Your task to perform on an android device: Search for acer nitro on walmart, select the first entry, and add it to the cart. Image 0: 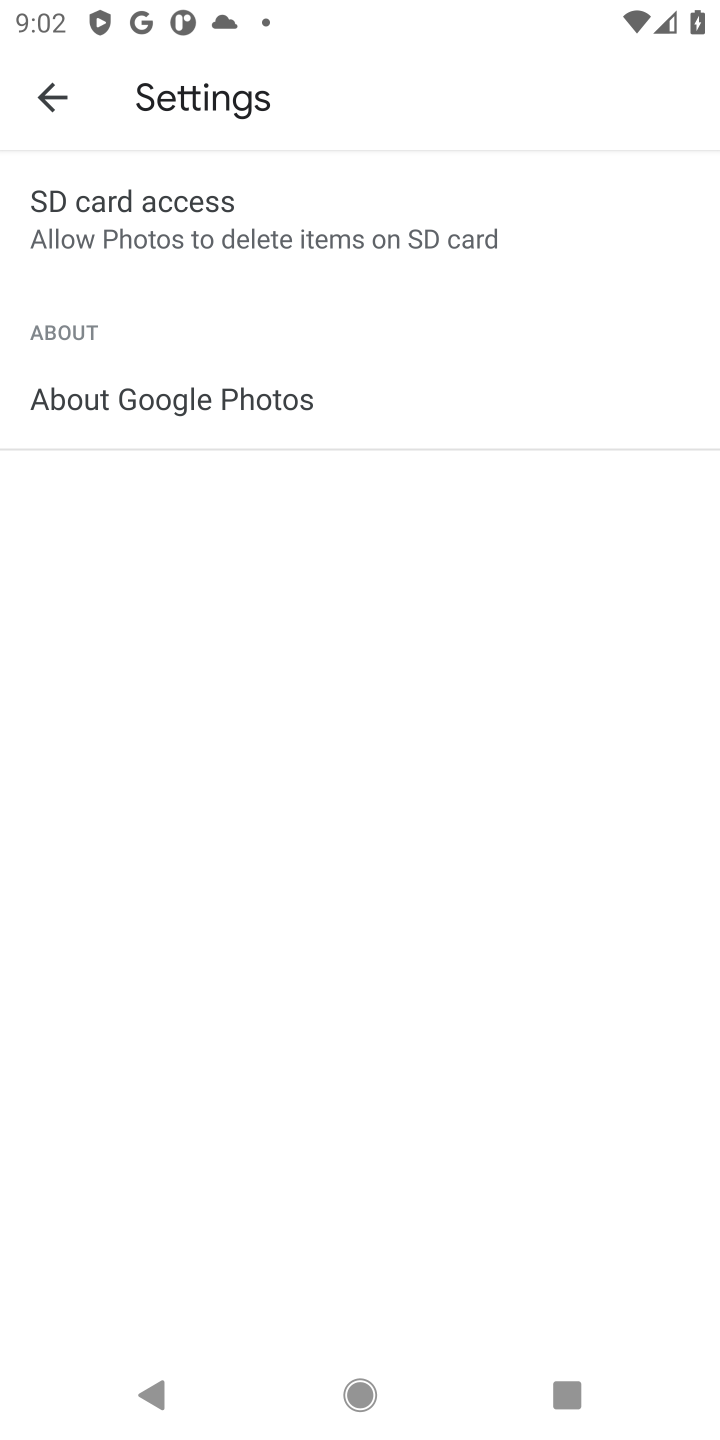
Step 0: press home button
Your task to perform on an android device: Search for acer nitro on walmart, select the first entry, and add it to the cart. Image 1: 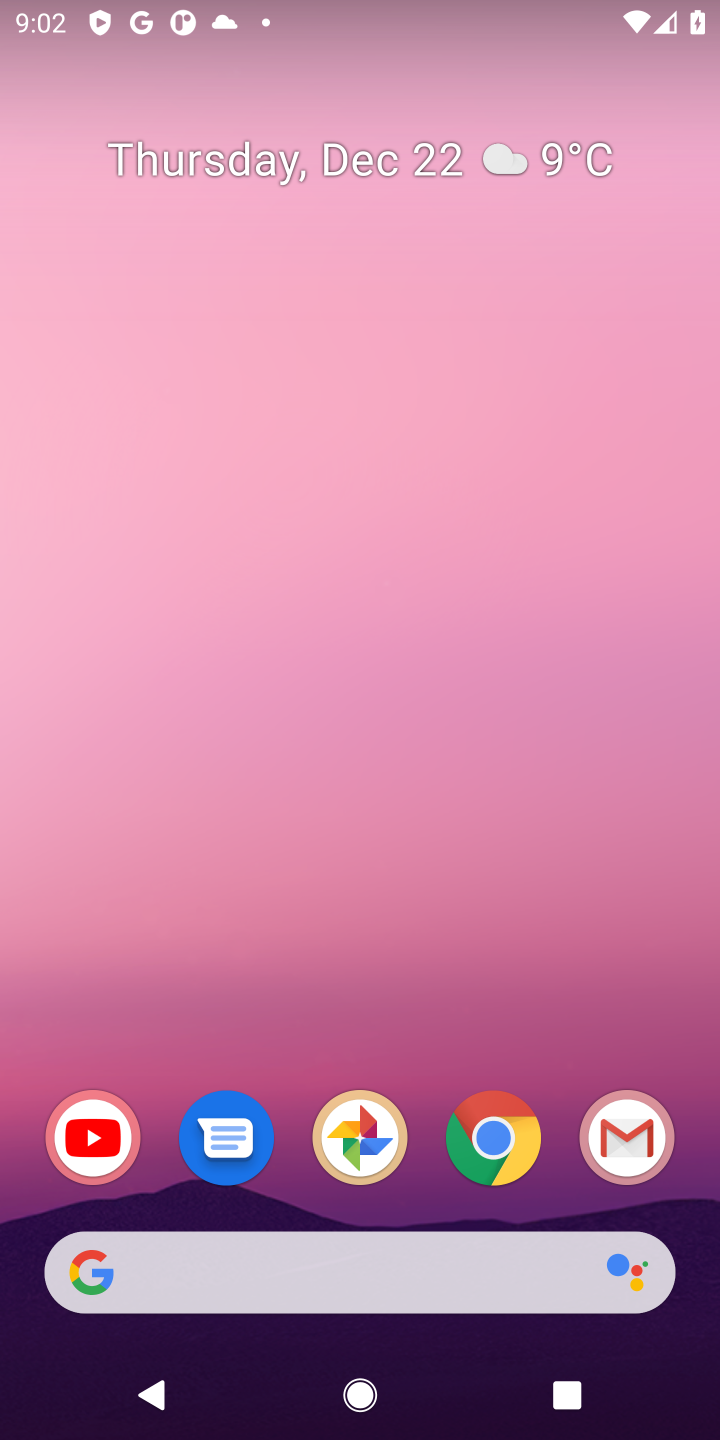
Step 1: click (514, 1153)
Your task to perform on an android device: Search for acer nitro on walmart, select the first entry, and add it to the cart. Image 2: 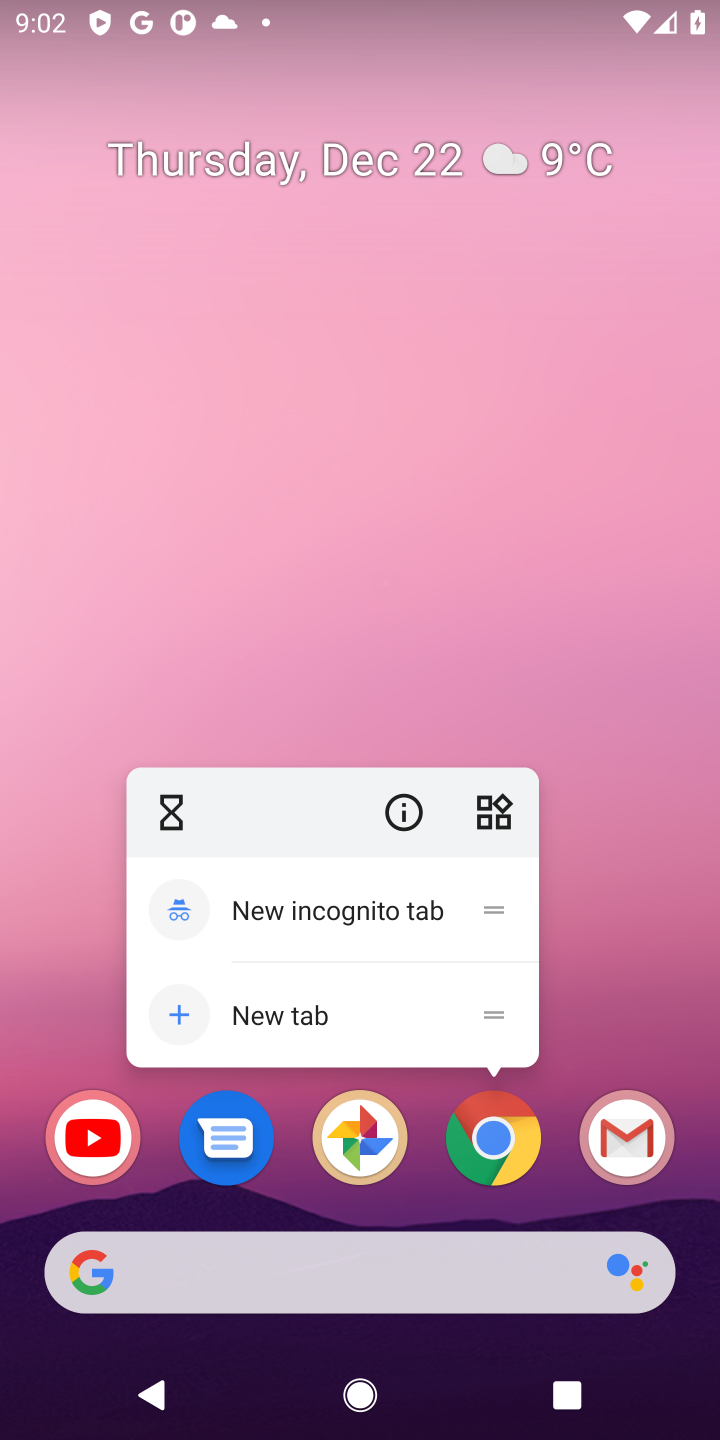
Step 2: click (494, 1154)
Your task to perform on an android device: Search for acer nitro on walmart, select the first entry, and add it to the cart. Image 3: 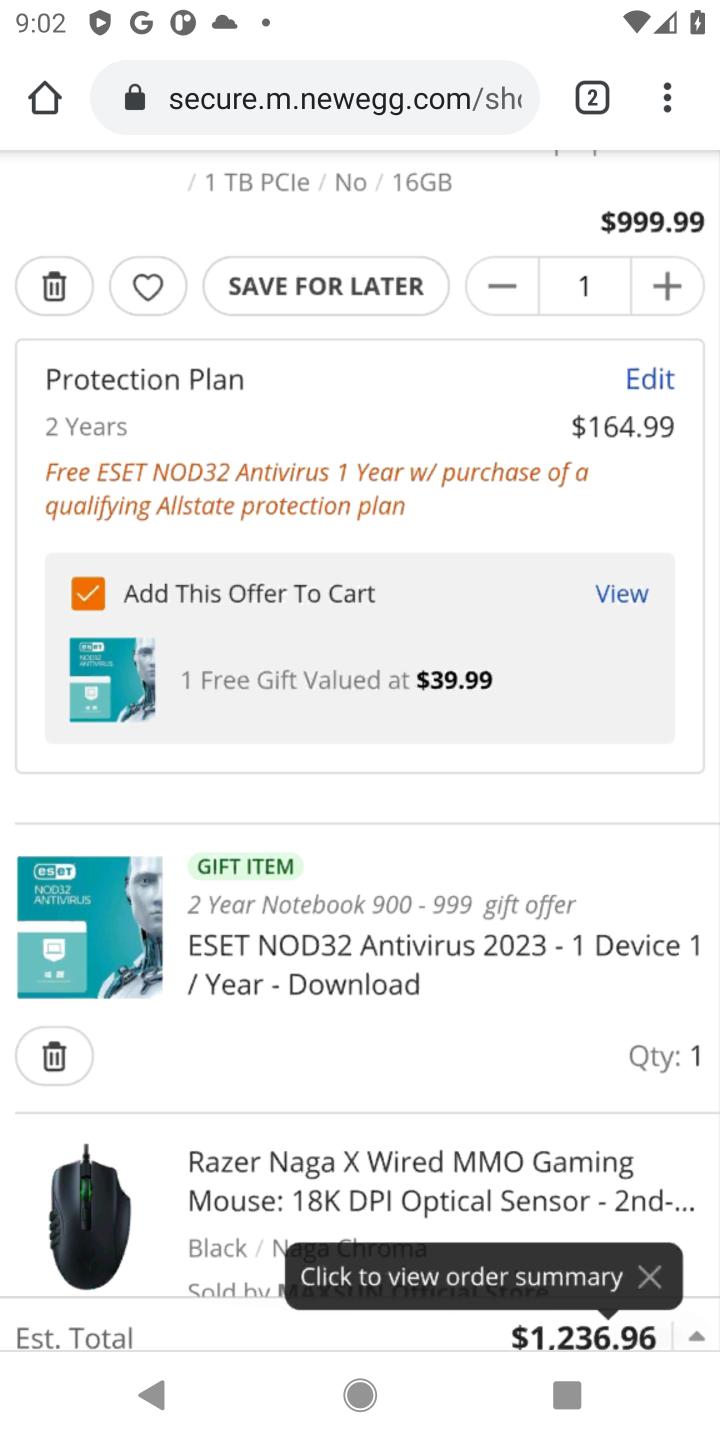
Step 3: click (319, 109)
Your task to perform on an android device: Search for acer nitro on walmart, select the first entry, and add it to the cart. Image 4: 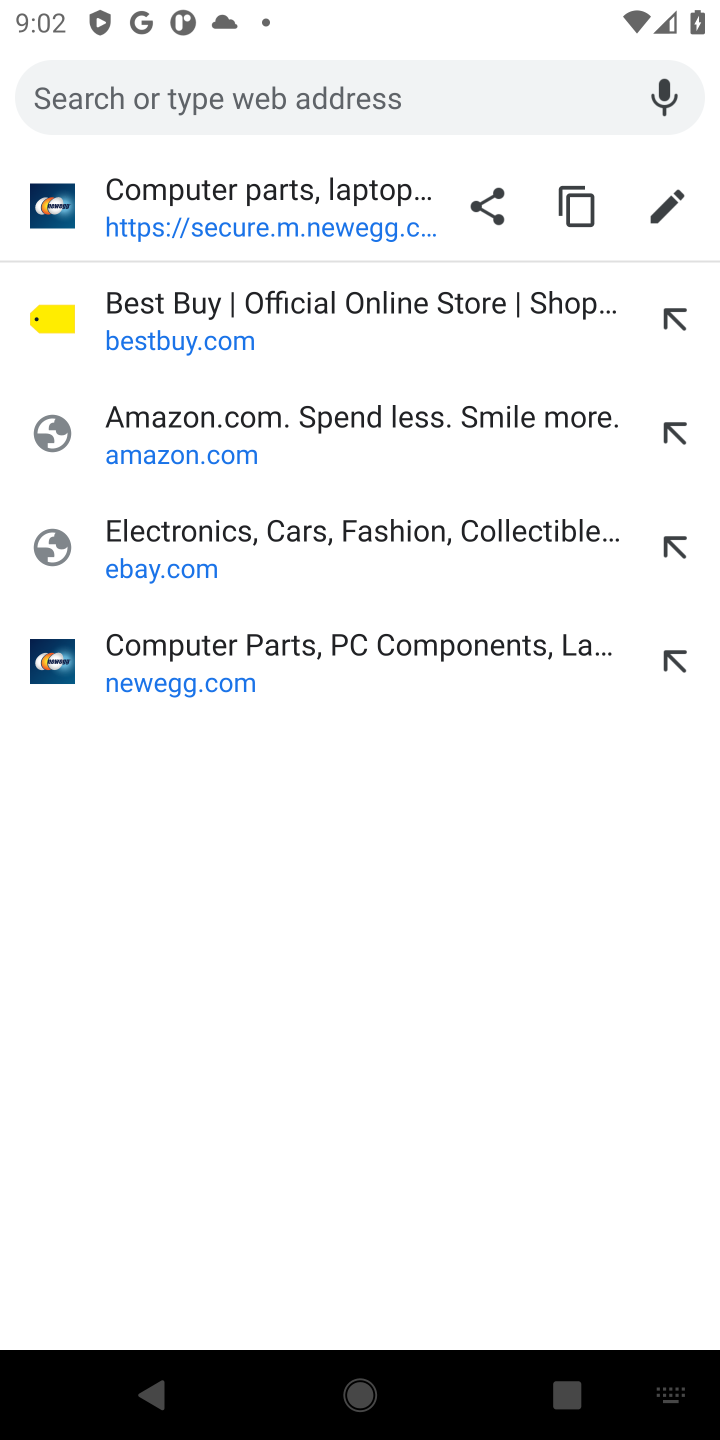
Step 4: type "walmart"
Your task to perform on an android device: Search for acer nitro on walmart, select the first entry, and add it to the cart. Image 5: 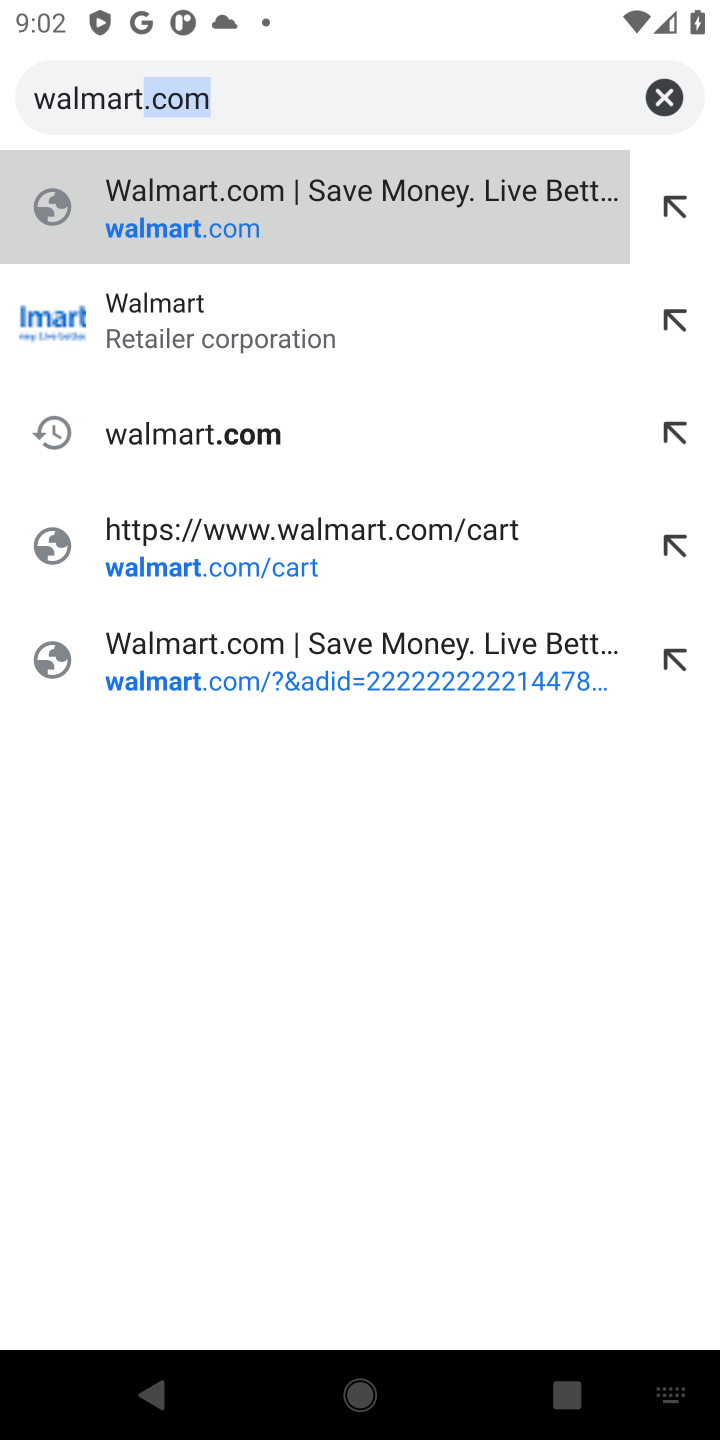
Step 5: click (205, 234)
Your task to perform on an android device: Search for acer nitro on walmart, select the first entry, and add it to the cart. Image 6: 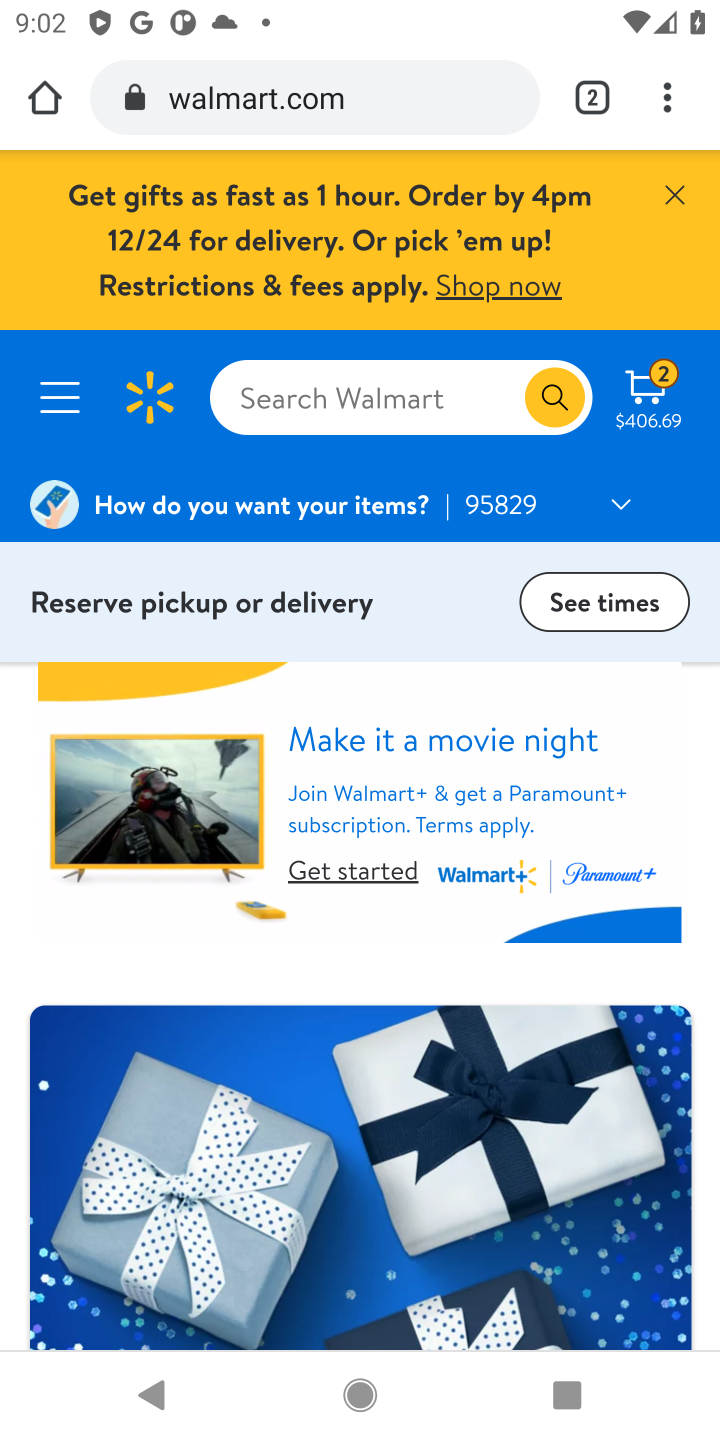
Step 6: click (410, 405)
Your task to perform on an android device: Search for acer nitro on walmart, select the first entry, and add it to the cart. Image 7: 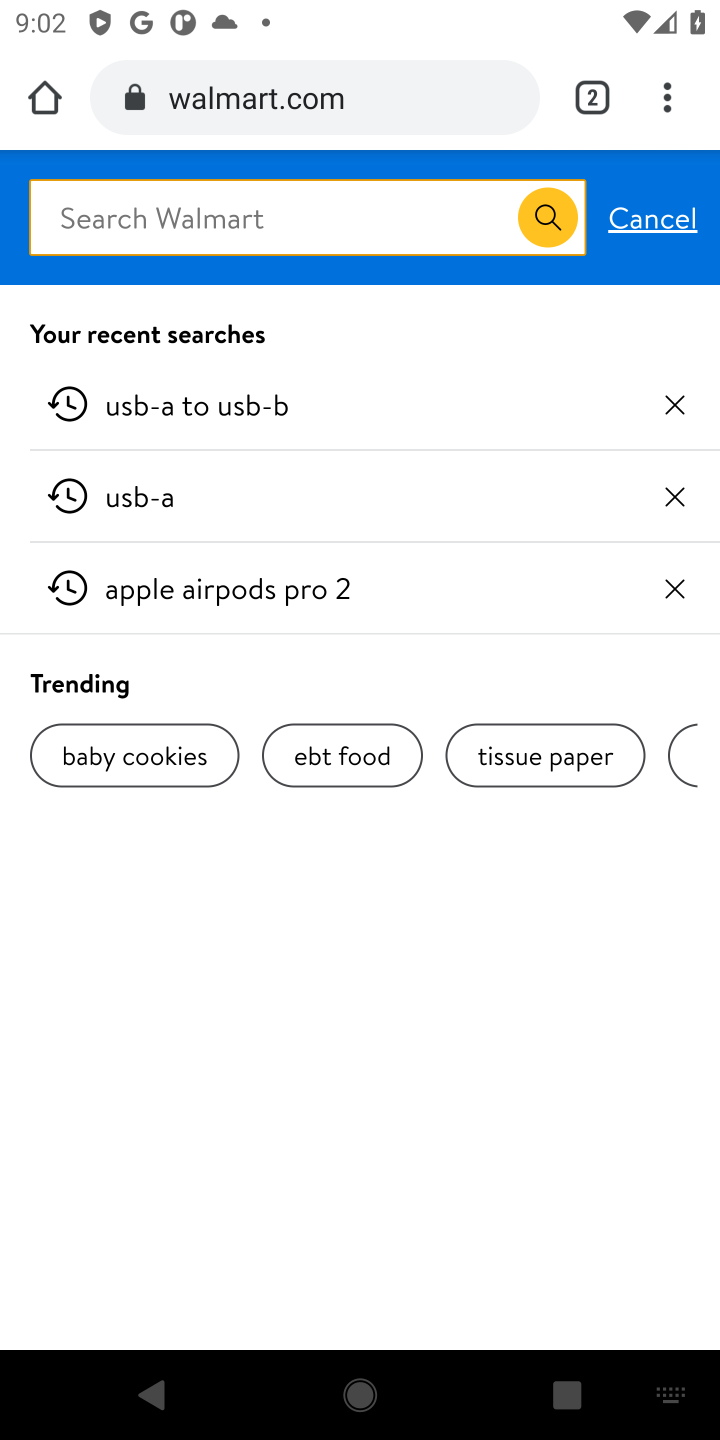
Step 7: type "acer nitro"
Your task to perform on an android device: Search for acer nitro on walmart, select the first entry, and add it to the cart. Image 8: 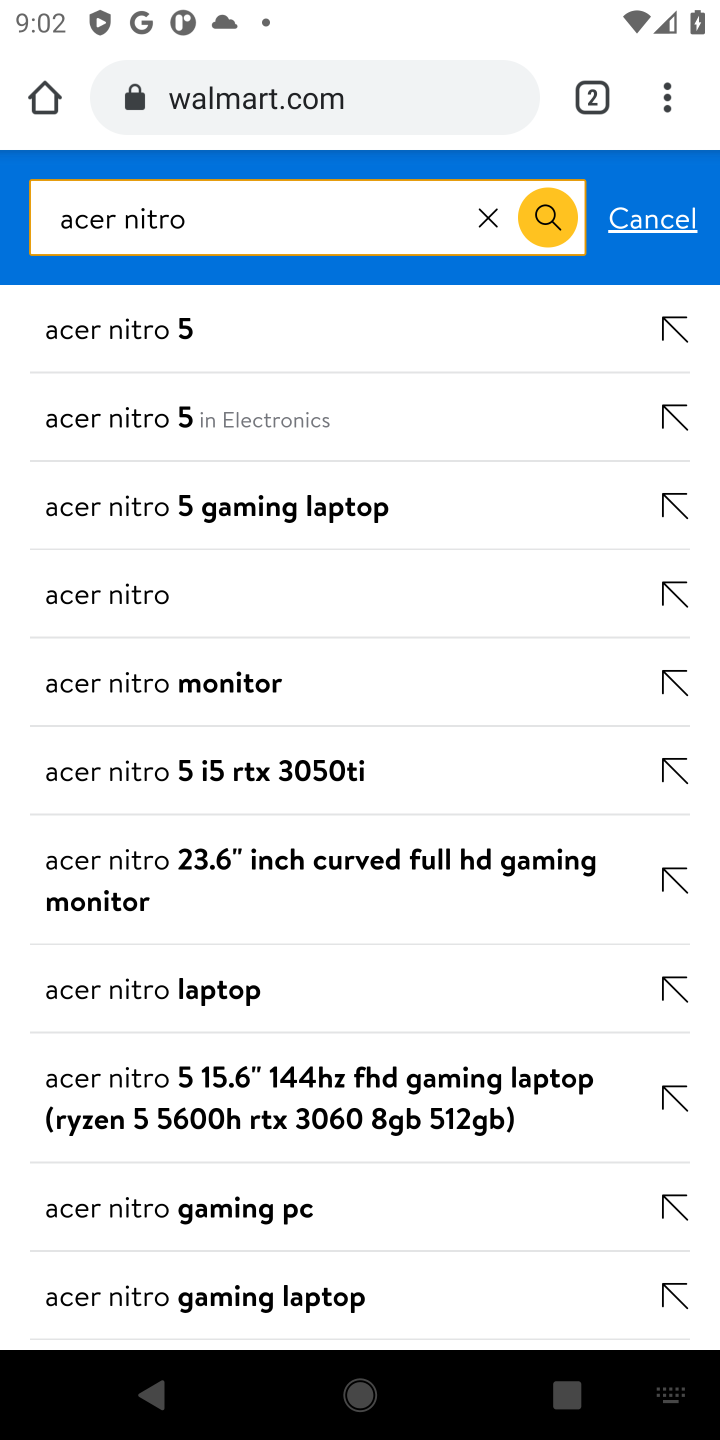
Step 8: click (554, 228)
Your task to perform on an android device: Search for acer nitro on walmart, select the first entry, and add it to the cart. Image 9: 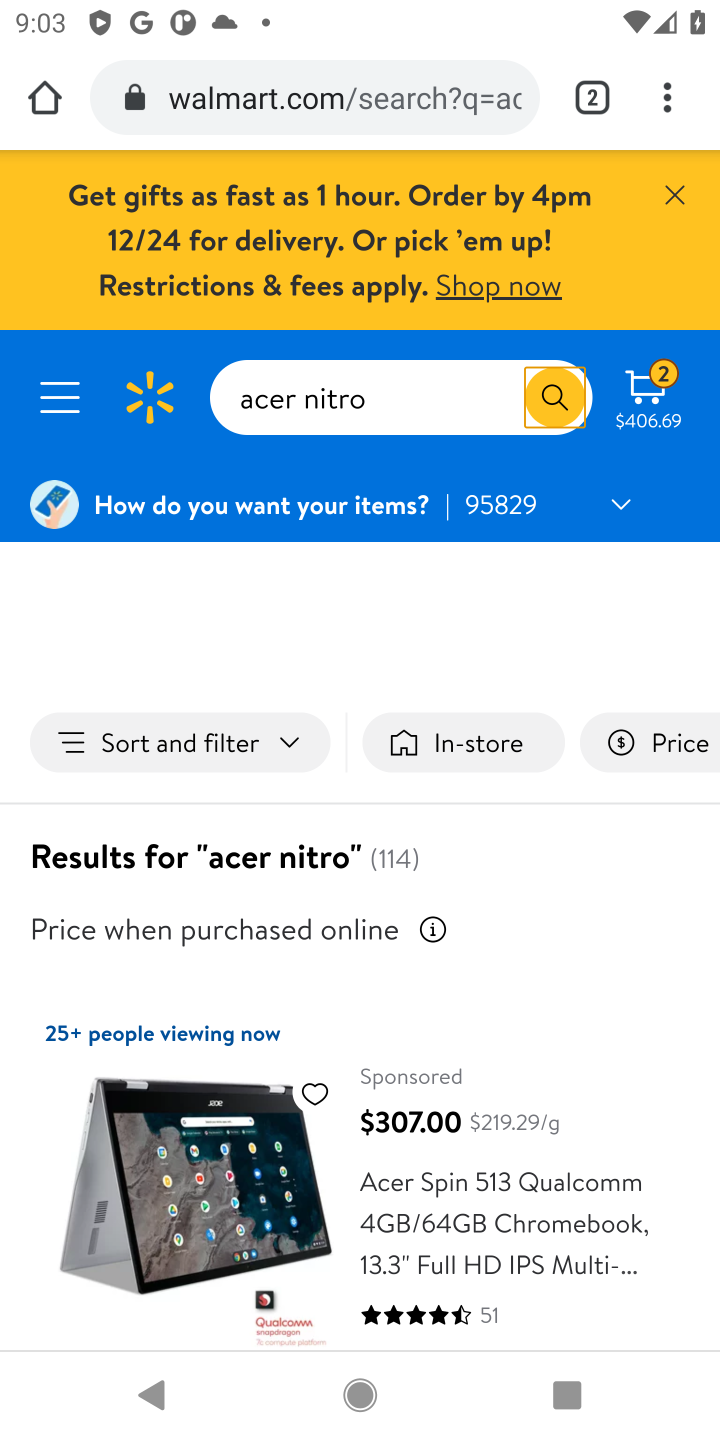
Step 9: drag from (570, 999) to (484, 184)
Your task to perform on an android device: Search for acer nitro on walmart, select the first entry, and add it to the cart. Image 10: 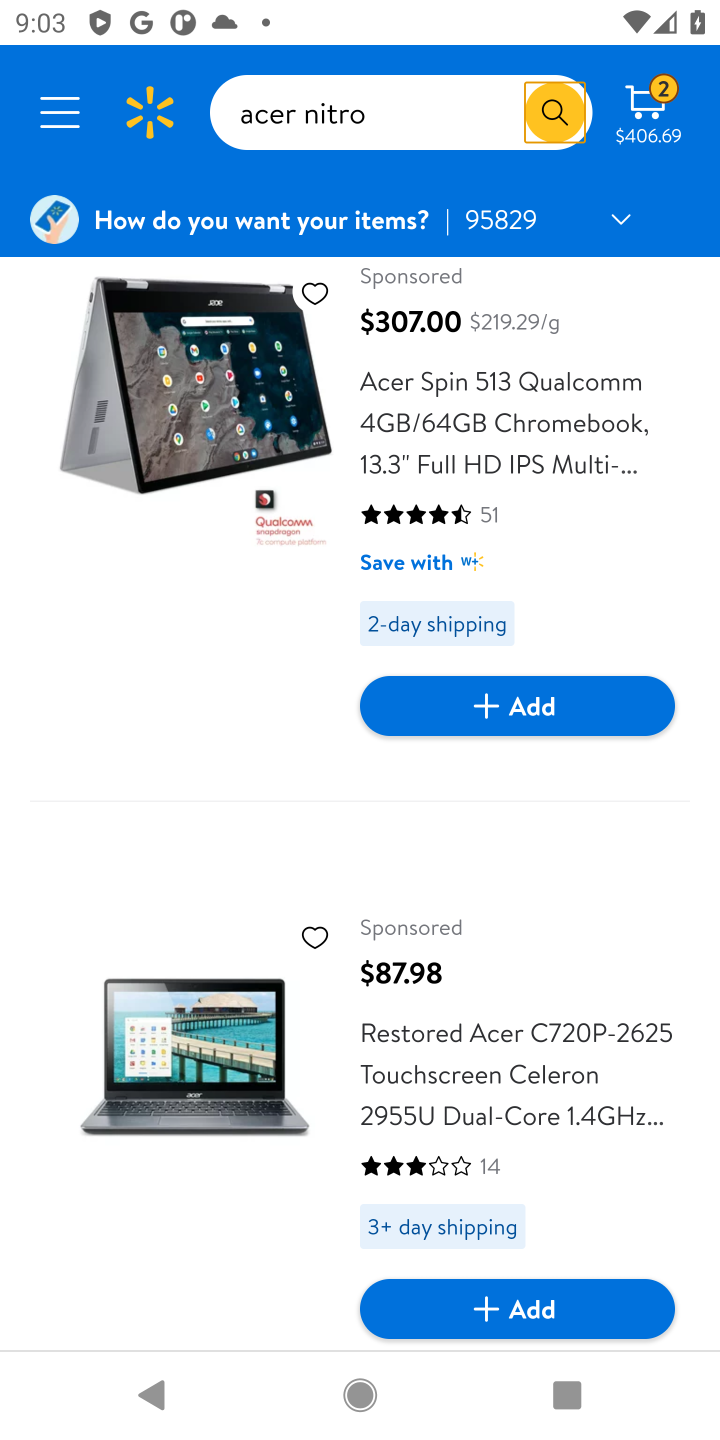
Step 10: drag from (516, 1186) to (426, 657)
Your task to perform on an android device: Search for acer nitro on walmart, select the first entry, and add it to the cart. Image 11: 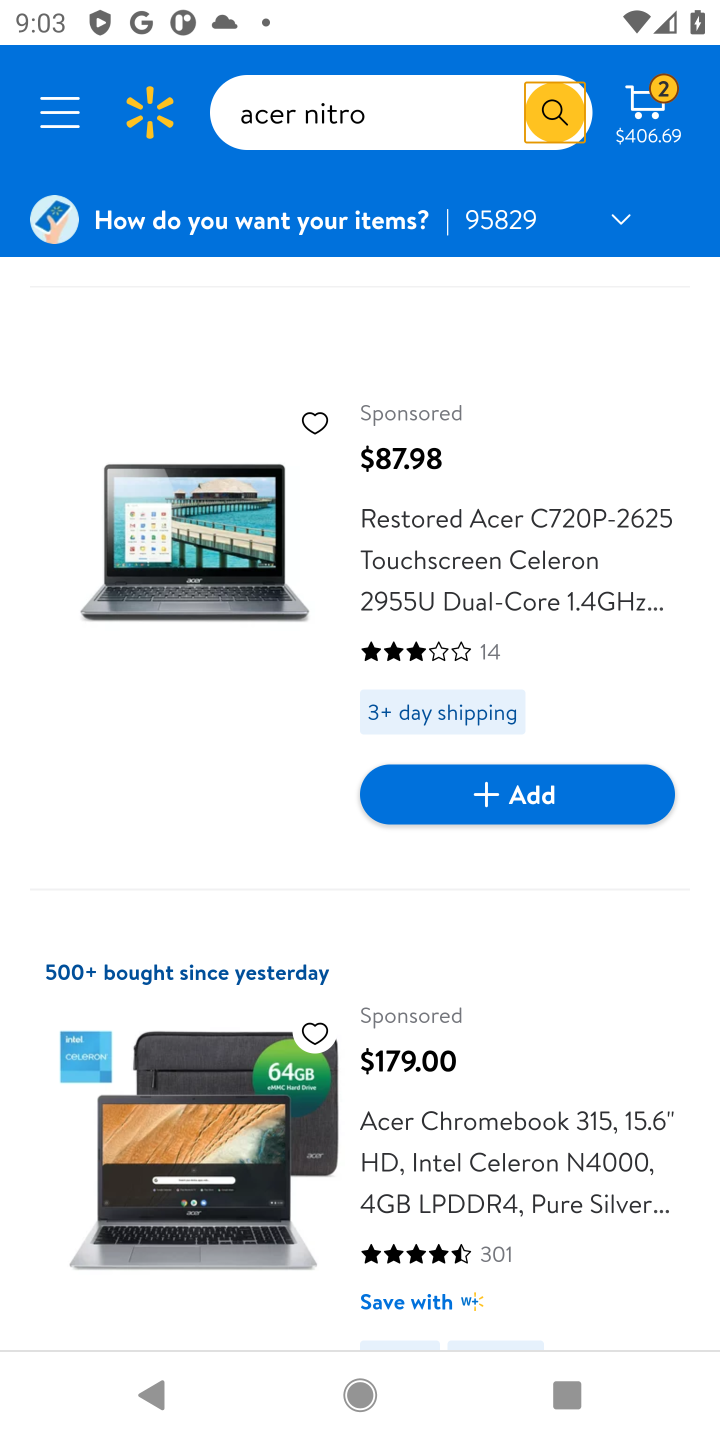
Step 11: drag from (555, 1265) to (354, 350)
Your task to perform on an android device: Search for acer nitro on walmart, select the first entry, and add it to the cart. Image 12: 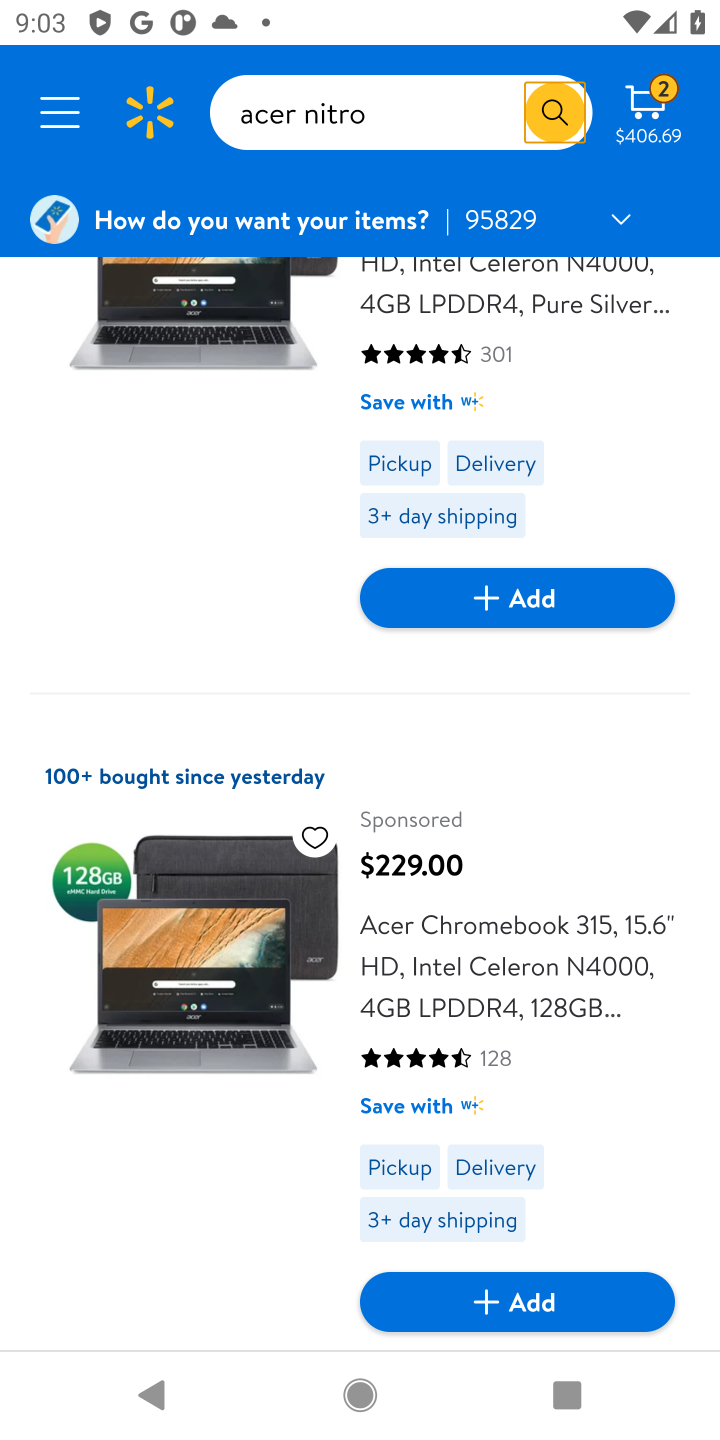
Step 12: drag from (539, 1039) to (525, 697)
Your task to perform on an android device: Search for acer nitro on walmart, select the first entry, and add it to the cart. Image 13: 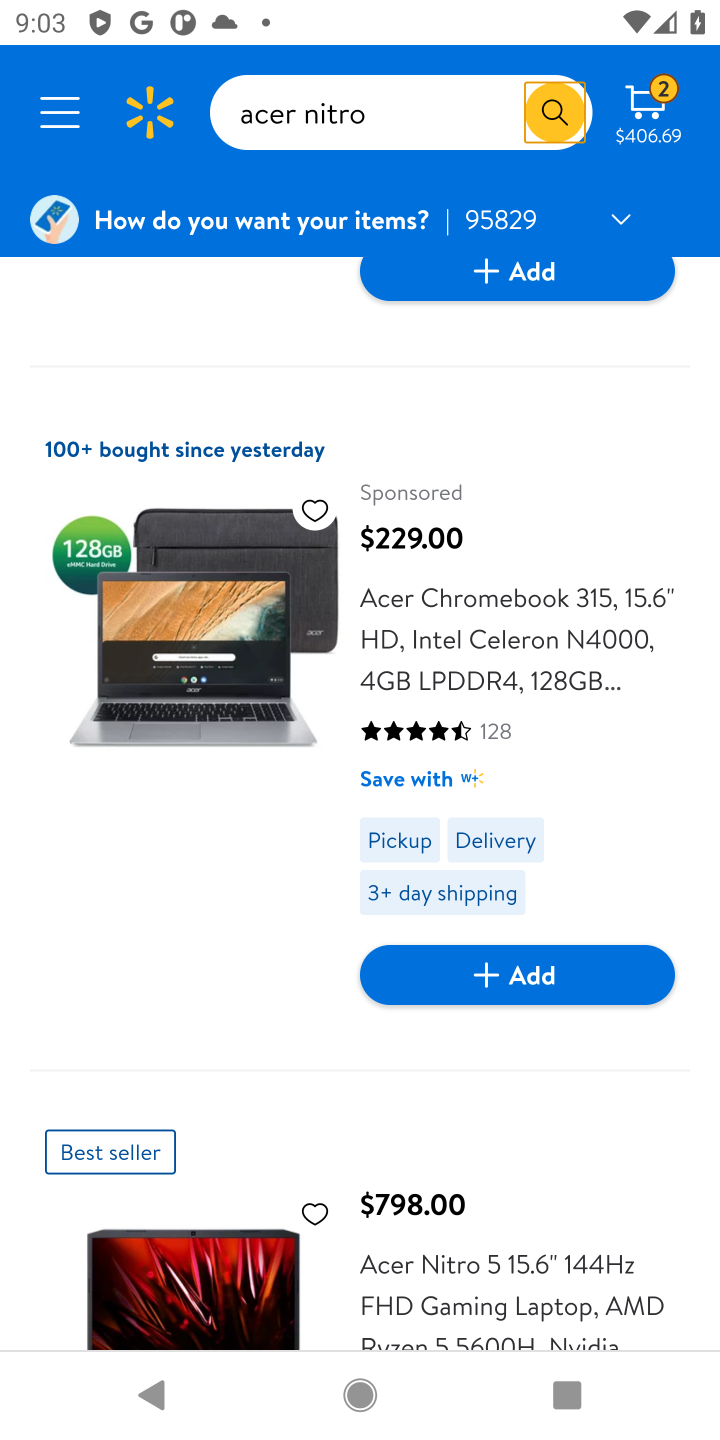
Step 13: drag from (553, 1173) to (534, 639)
Your task to perform on an android device: Search for acer nitro on walmart, select the first entry, and add it to the cart. Image 14: 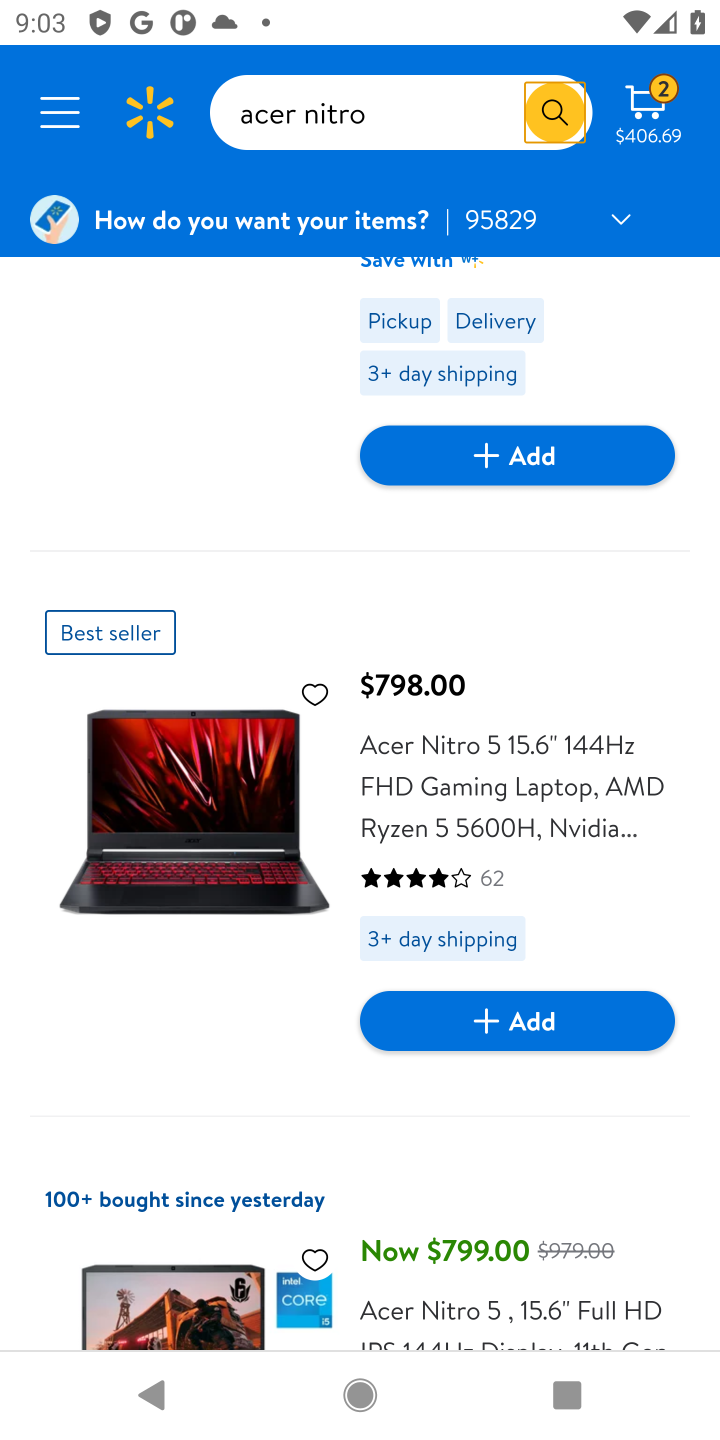
Step 14: drag from (272, 396) to (200, 1174)
Your task to perform on an android device: Search for acer nitro on walmart, select the first entry, and add it to the cart. Image 15: 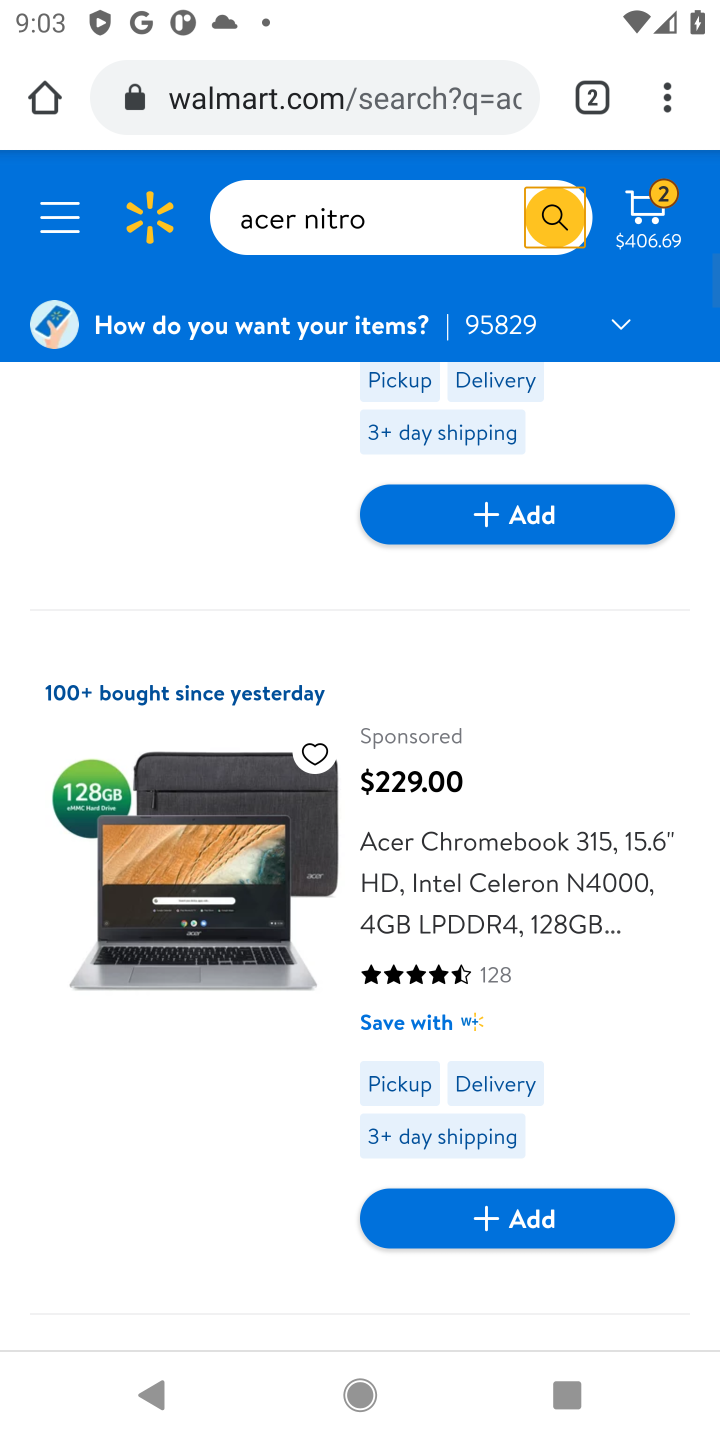
Step 15: drag from (256, 572) to (195, 1238)
Your task to perform on an android device: Search for acer nitro on walmart, select the first entry, and add it to the cart. Image 16: 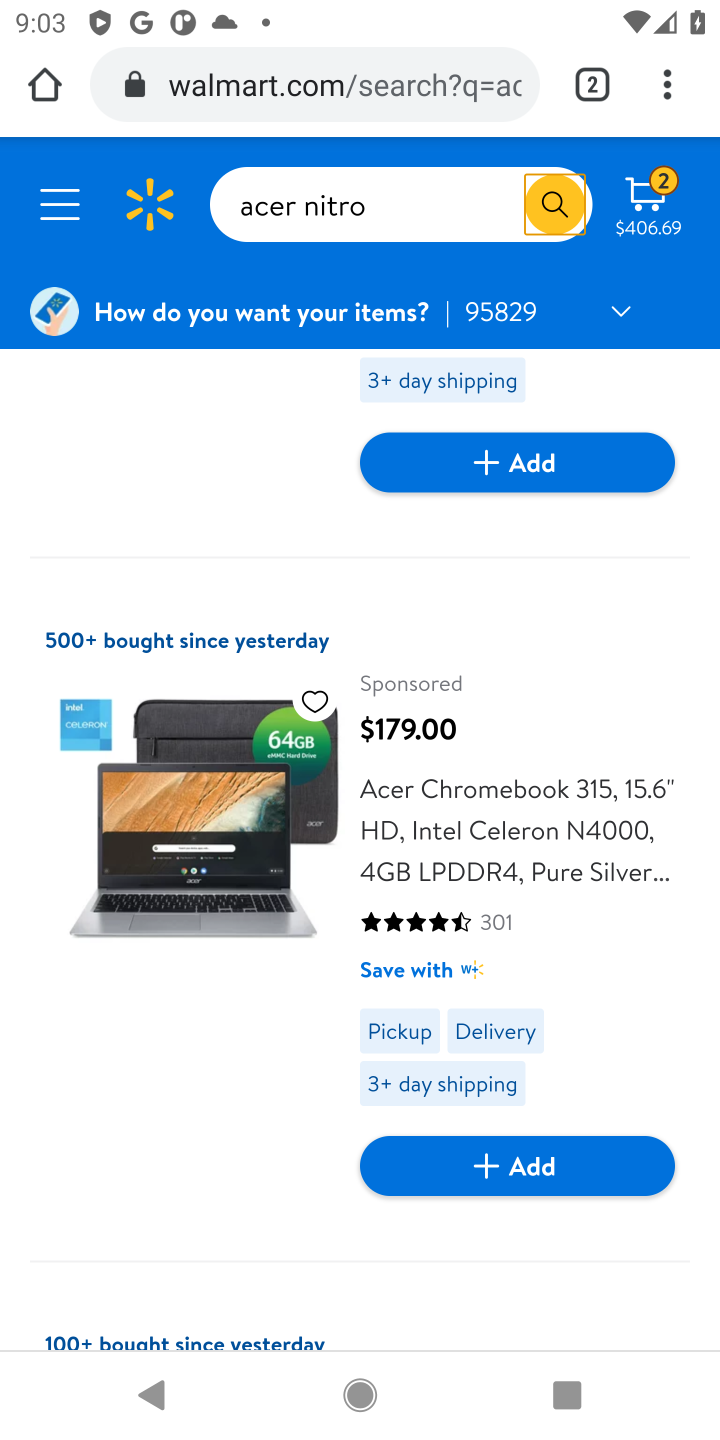
Step 16: drag from (245, 539) to (195, 1439)
Your task to perform on an android device: Search for acer nitro on walmart, select the first entry, and add it to the cart. Image 17: 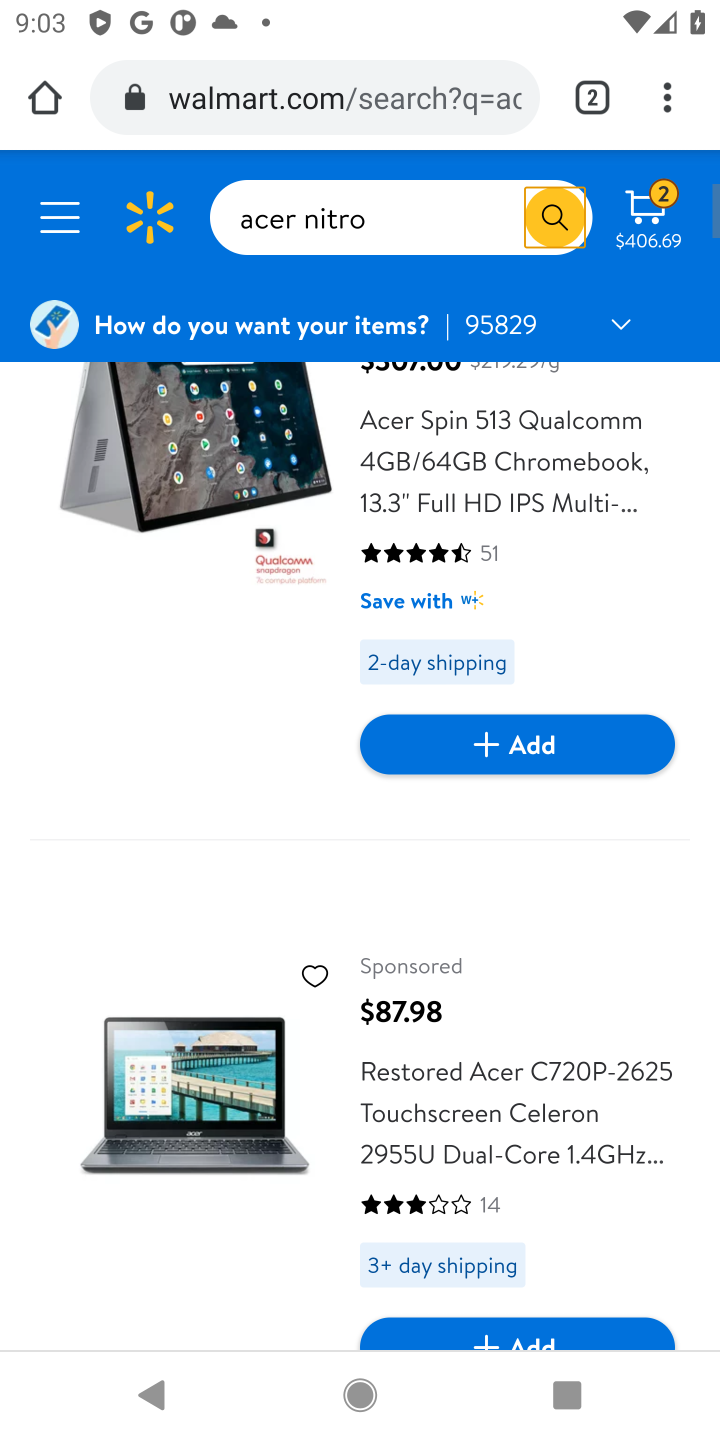
Step 17: drag from (221, 823) to (491, 512)
Your task to perform on an android device: Search for acer nitro on walmart, select the first entry, and add it to the cart. Image 18: 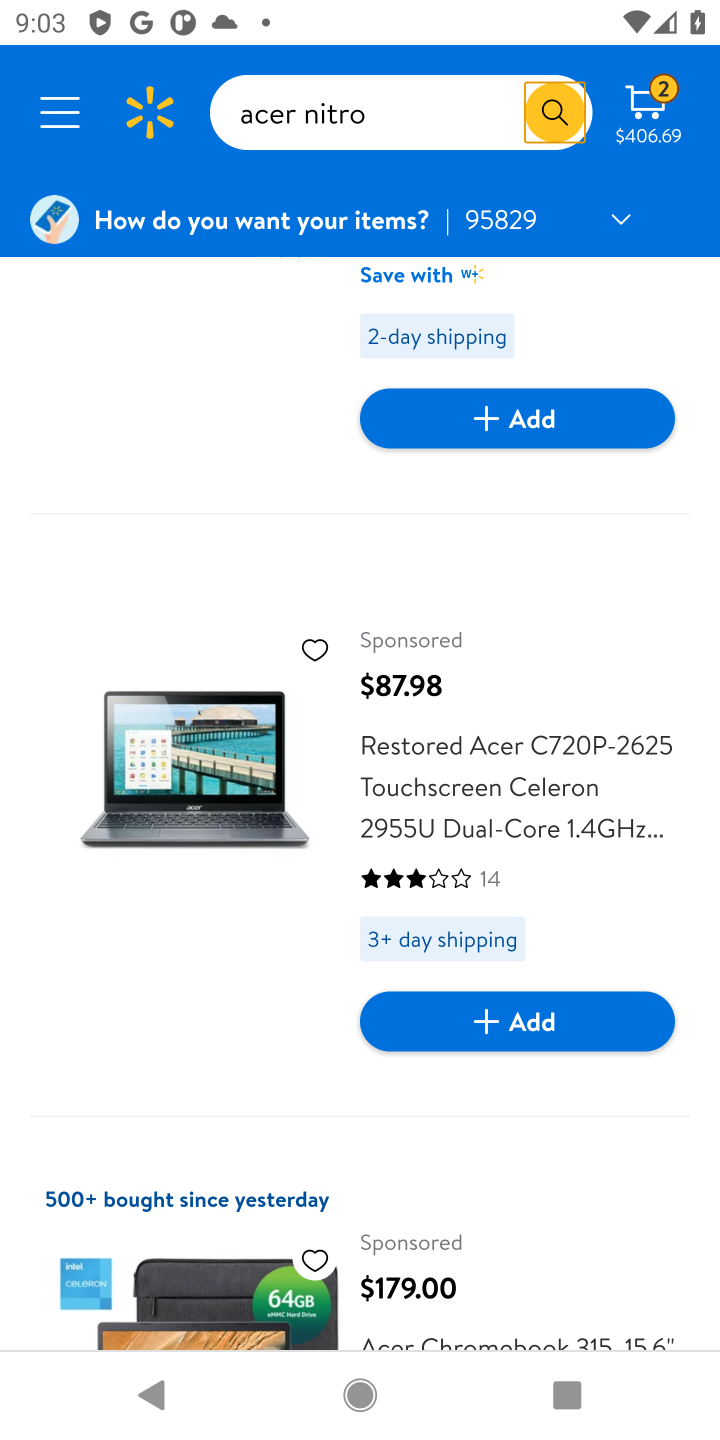
Step 18: drag from (274, 1091) to (374, 329)
Your task to perform on an android device: Search for acer nitro on walmart, select the first entry, and add it to the cart. Image 19: 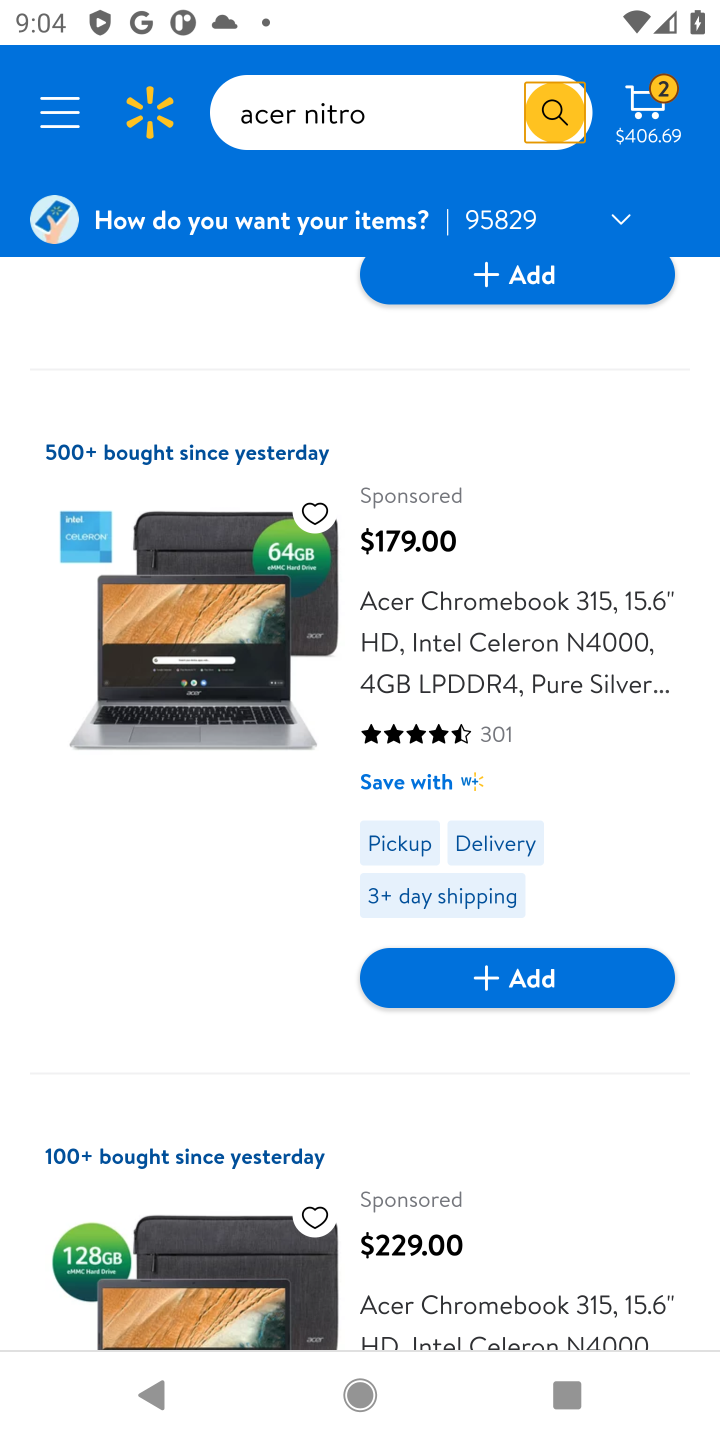
Step 19: drag from (269, 894) to (370, 417)
Your task to perform on an android device: Search for acer nitro on walmart, select the first entry, and add it to the cart. Image 20: 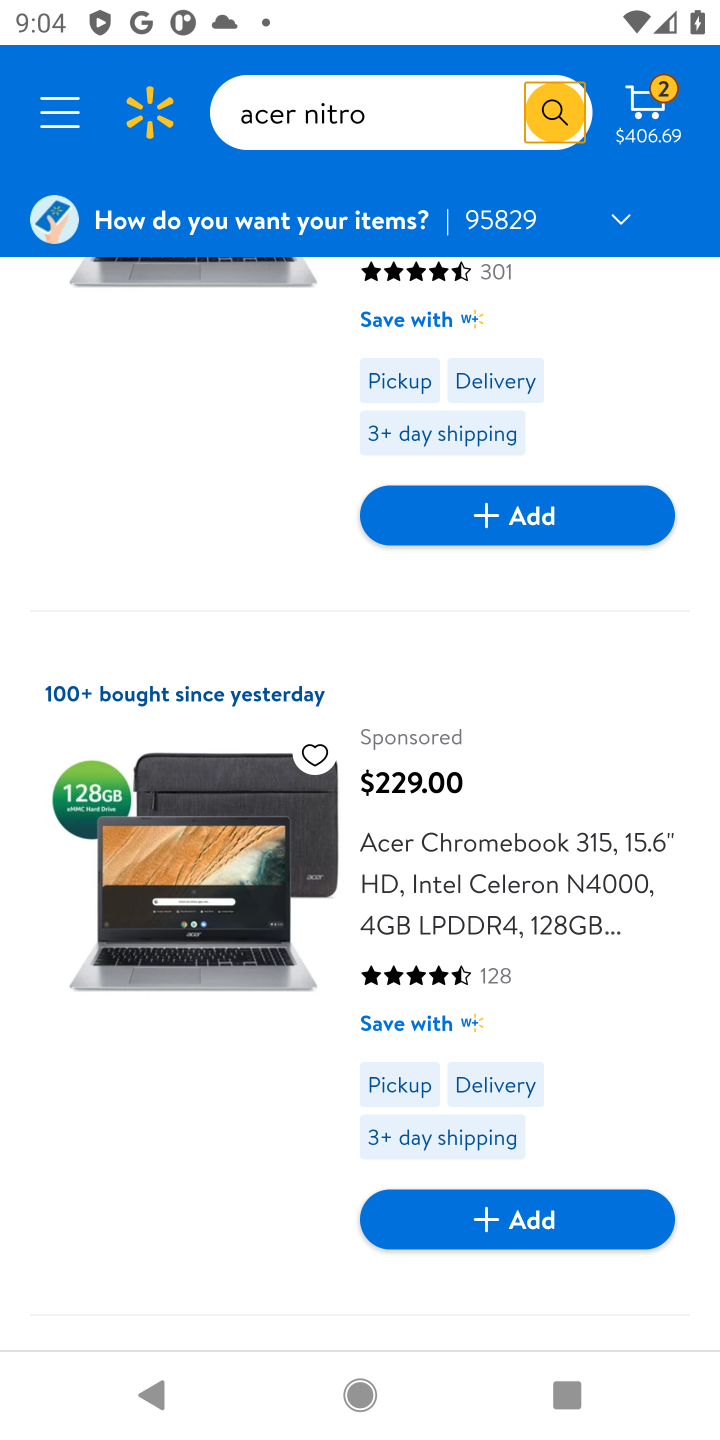
Step 20: drag from (284, 1124) to (300, 852)
Your task to perform on an android device: Search for acer nitro on walmart, select the first entry, and add it to the cart. Image 21: 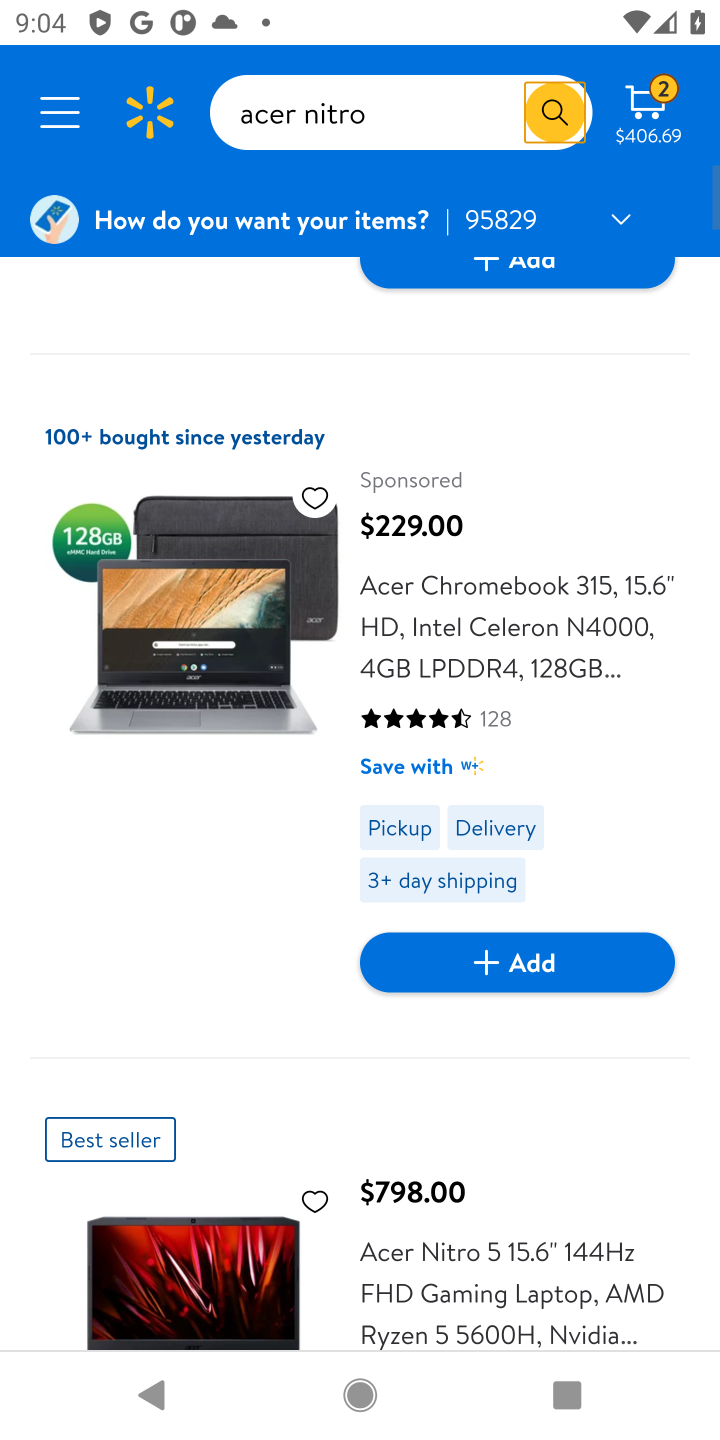
Step 21: drag from (430, 1289) to (414, 745)
Your task to perform on an android device: Search for acer nitro on walmart, select the first entry, and add it to the cart. Image 22: 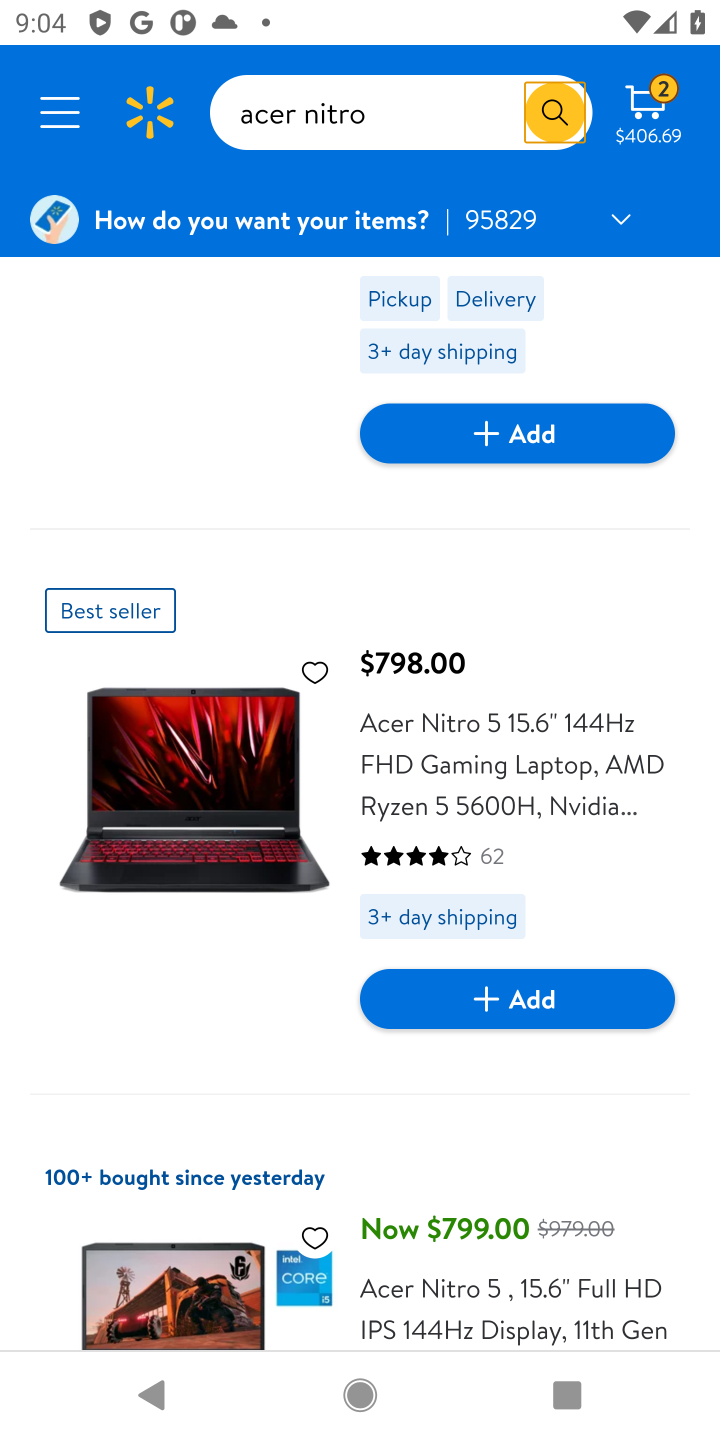
Step 22: click (499, 996)
Your task to perform on an android device: Search for acer nitro on walmart, select the first entry, and add it to the cart. Image 23: 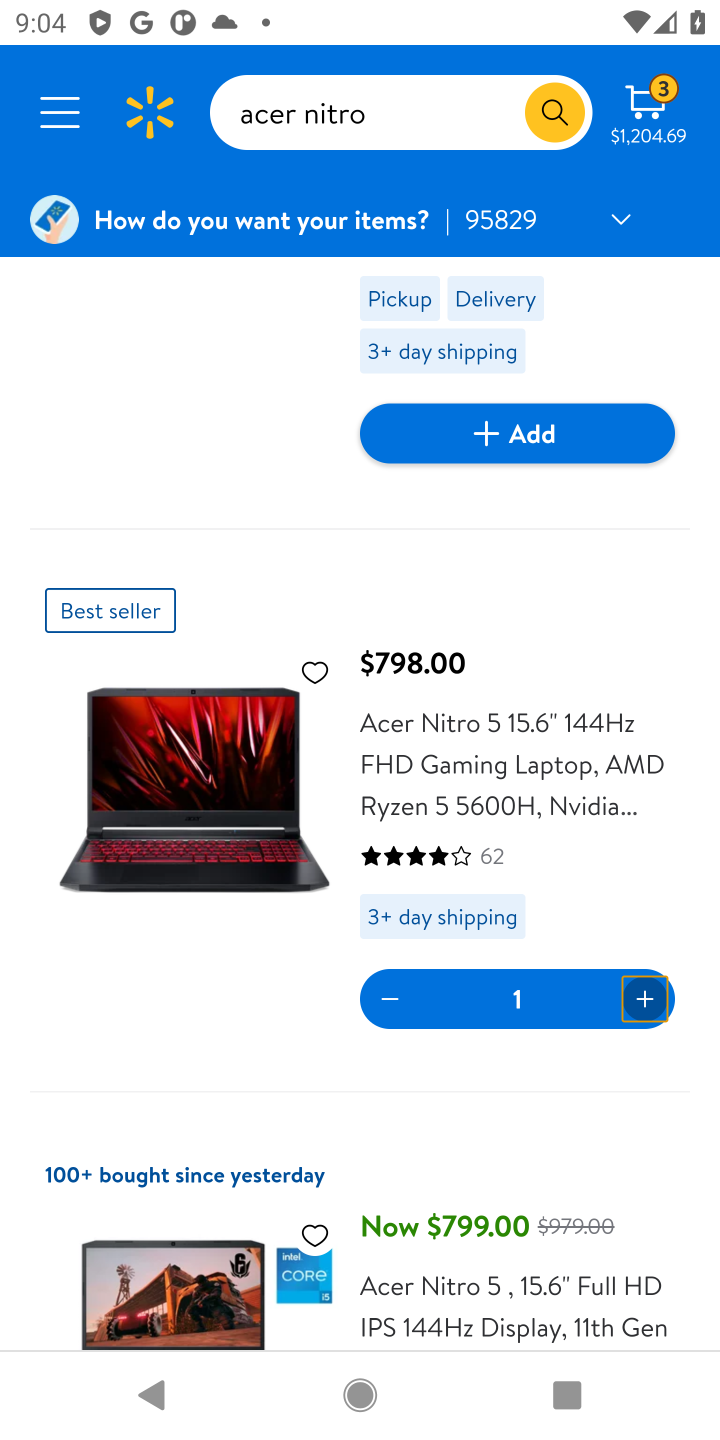
Step 23: click (645, 127)
Your task to perform on an android device: Search for acer nitro on walmart, select the first entry, and add it to the cart. Image 24: 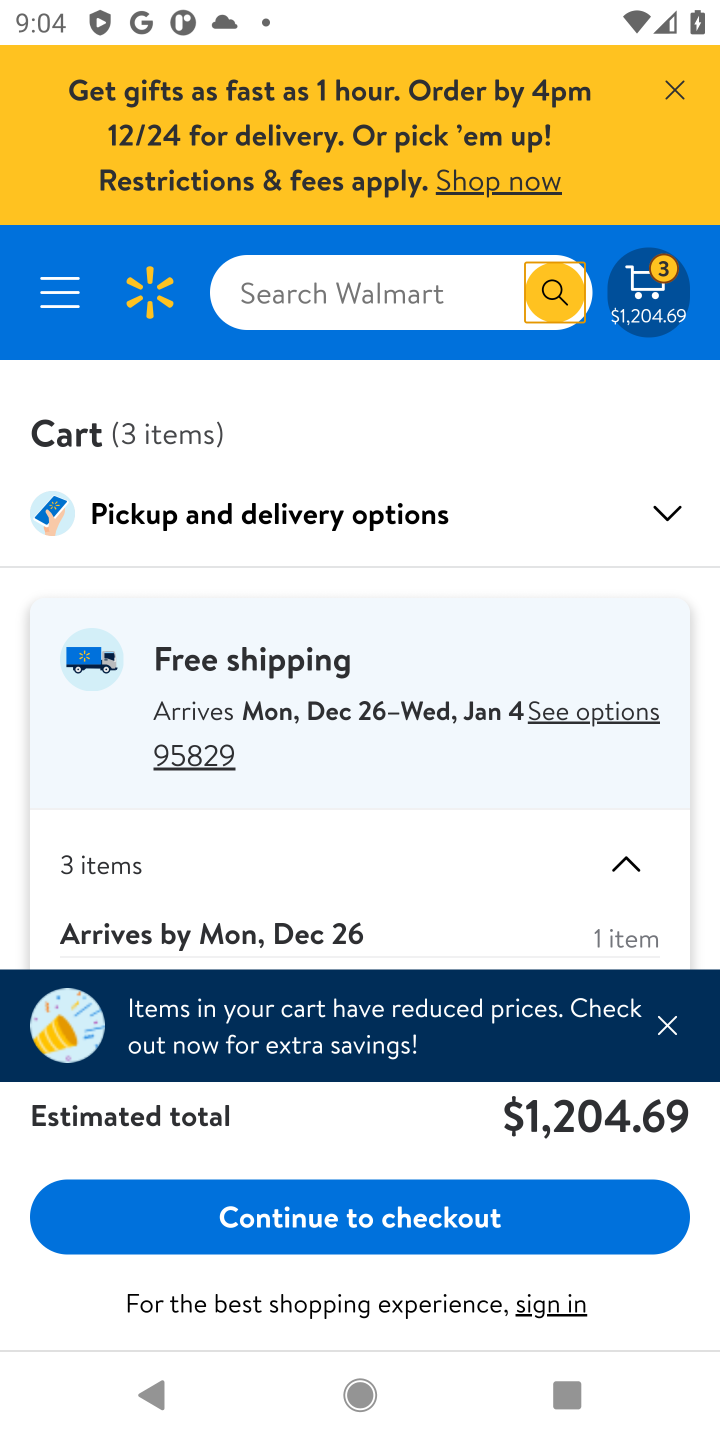
Step 24: click (381, 1210)
Your task to perform on an android device: Search for acer nitro on walmart, select the first entry, and add it to the cart. Image 25: 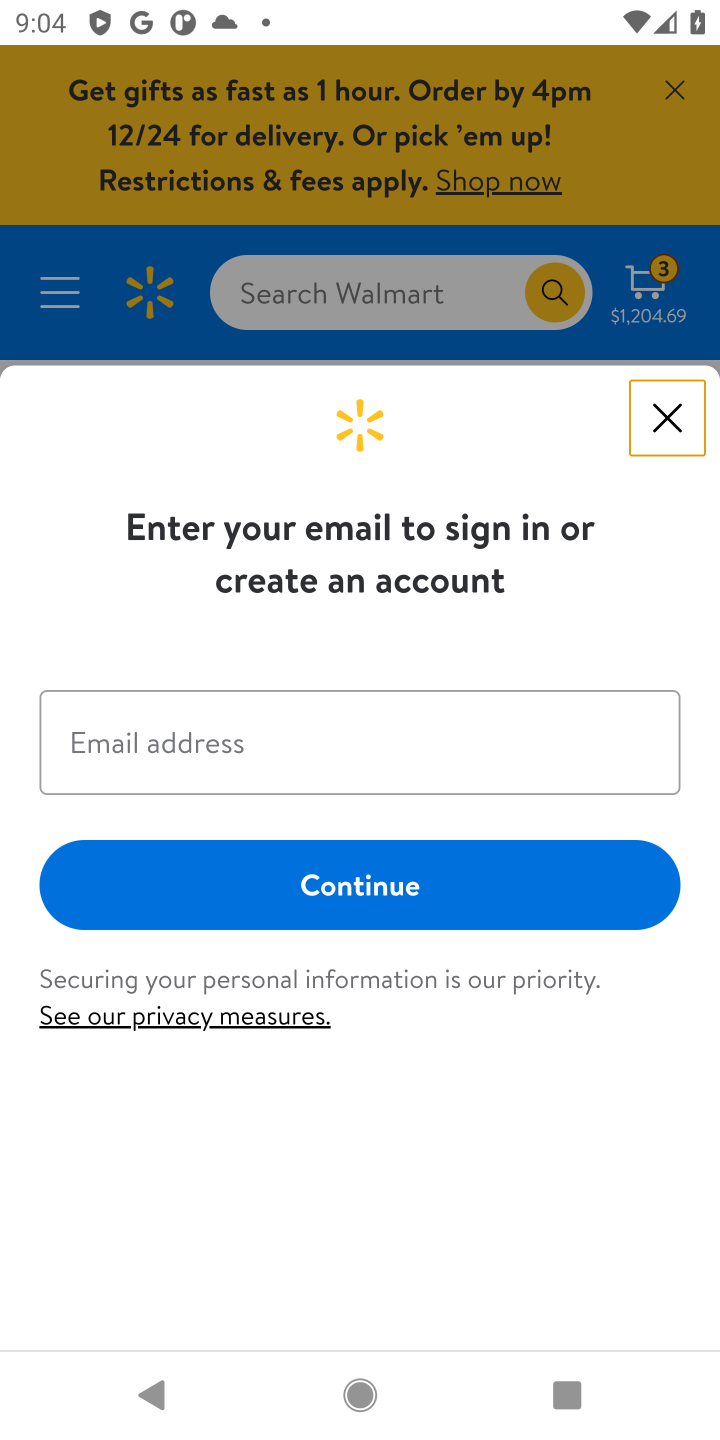
Step 25: task complete